Your task to perform on an android device: see sites visited before in the chrome app Image 0: 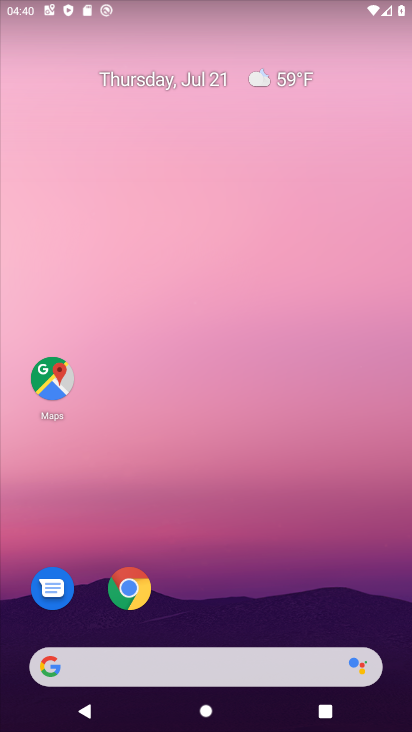
Step 0: click (136, 590)
Your task to perform on an android device: see sites visited before in the chrome app Image 1: 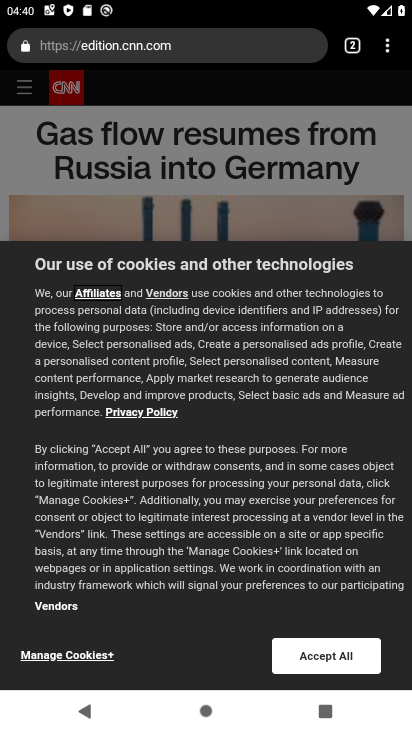
Step 1: click (386, 52)
Your task to perform on an android device: see sites visited before in the chrome app Image 2: 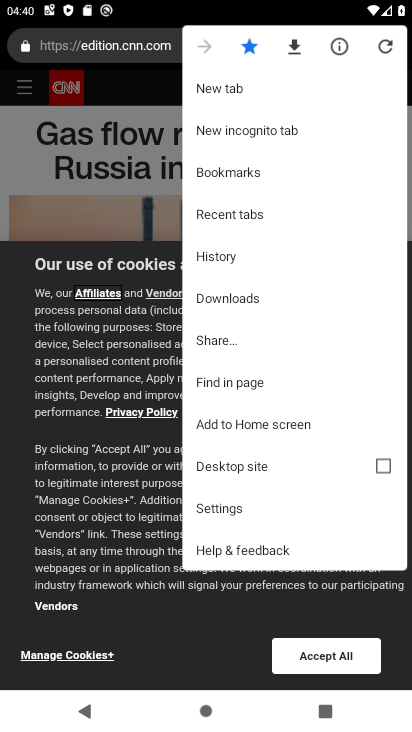
Step 2: click (224, 260)
Your task to perform on an android device: see sites visited before in the chrome app Image 3: 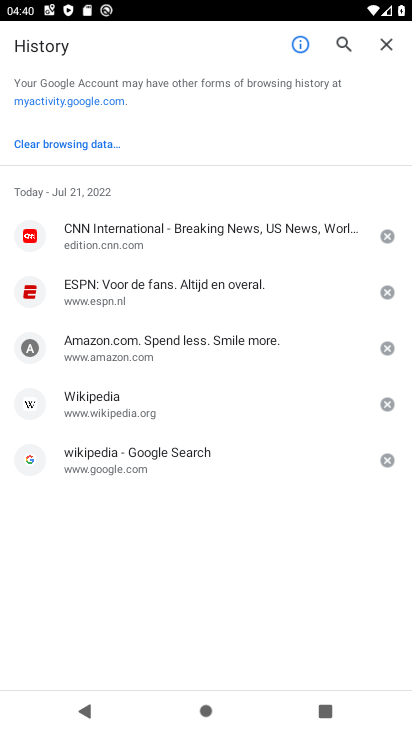
Step 3: task complete